Your task to perform on an android device: change the clock display to show seconds Image 0: 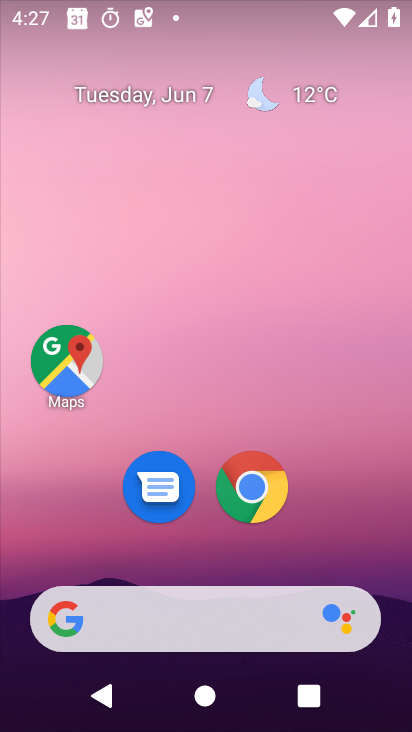
Step 0: drag from (193, 576) to (235, 0)
Your task to perform on an android device: change the clock display to show seconds Image 1: 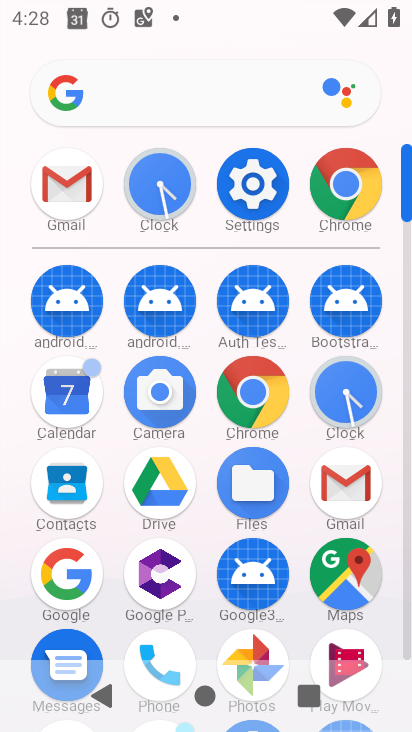
Step 1: click (157, 185)
Your task to perform on an android device: change the clock display to show seconds Image 2: 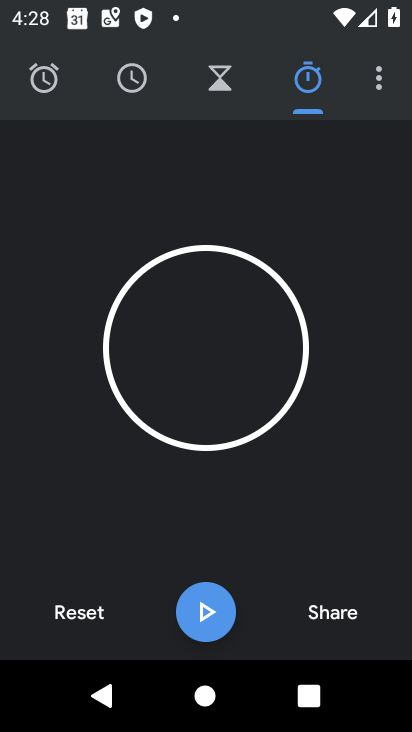
Step 2: click (361, 66)
Your task to perform on an android device: change the clock display to show seconds Image 3: 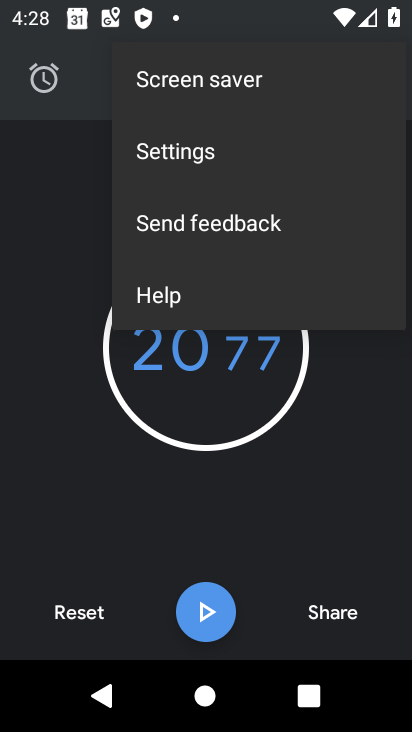
Step 3: click (229, 154)
Your task to perform on an android device: change the clock display to show seconds Image 4: 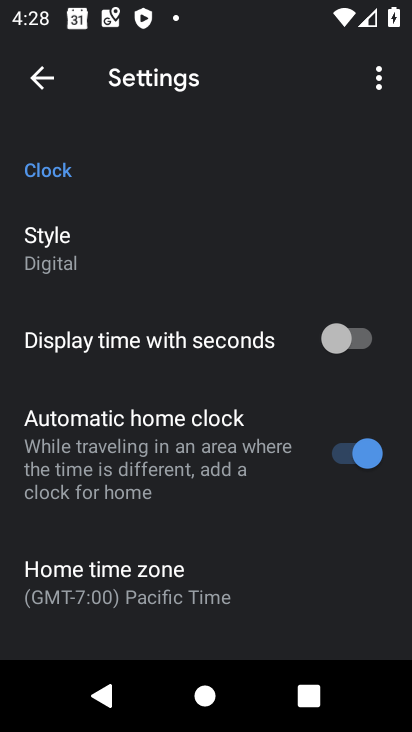
Step 4: click (112, 241)
Your task to perform on an android device: change the clock display to show seconds Image 5: 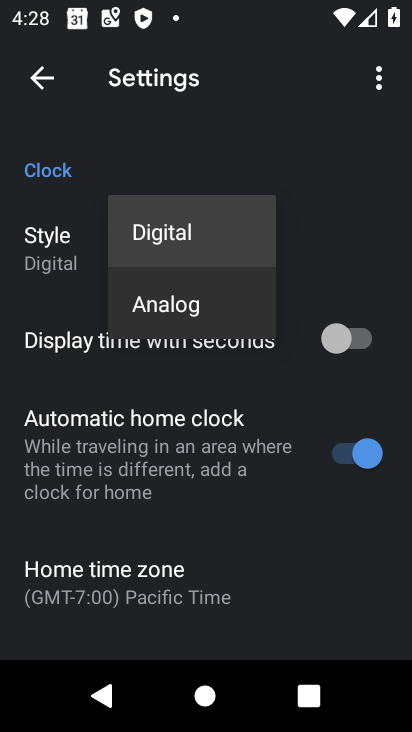
Step 5: click (197, 241)
Your task to perform on an android device: change the clock display to show seconds Image 6: 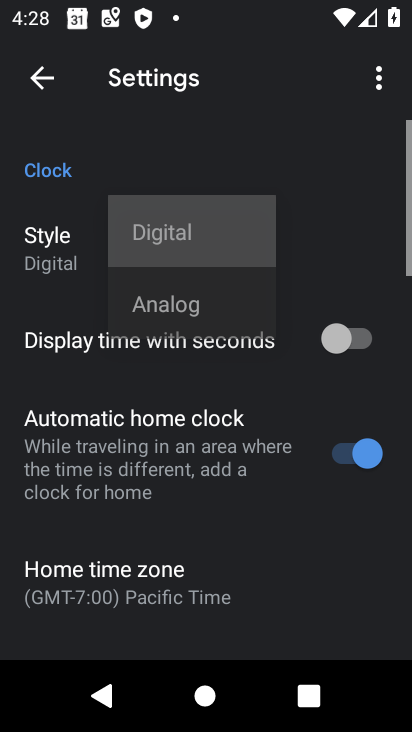
Step 6: click (345, 347)
Your task to perform on an android device: change the clock display to show seconds Image 7: 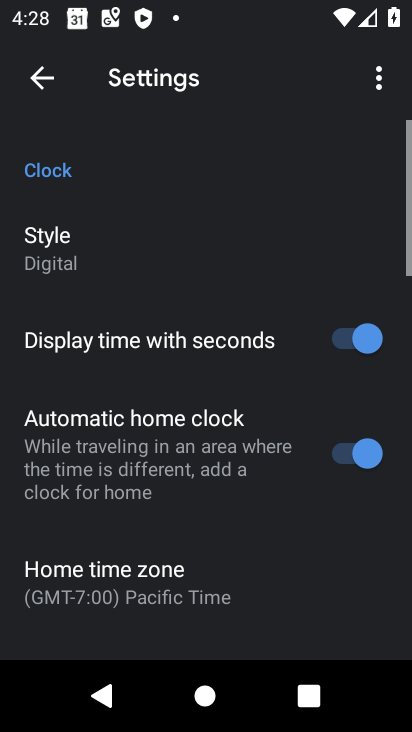
Step 7: task complete